Your task to perform on an android device: Show me the alarms in the clock app Image 0: 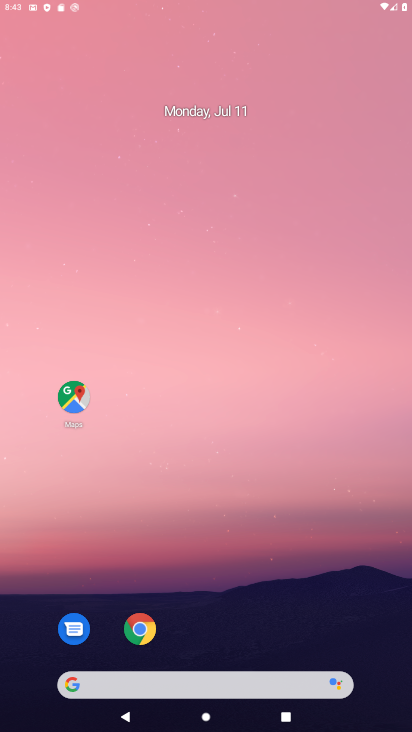
Step 0: click (218, 77)
Your task to perform on an android device: Show me the alarms in the clock app Image 1: 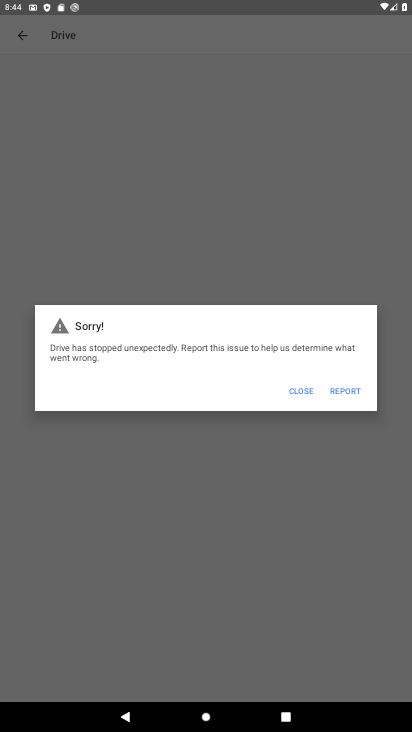
Step 1: press home button
Your task to perform on an android device: Show me the alarms in the clock app Image 2: 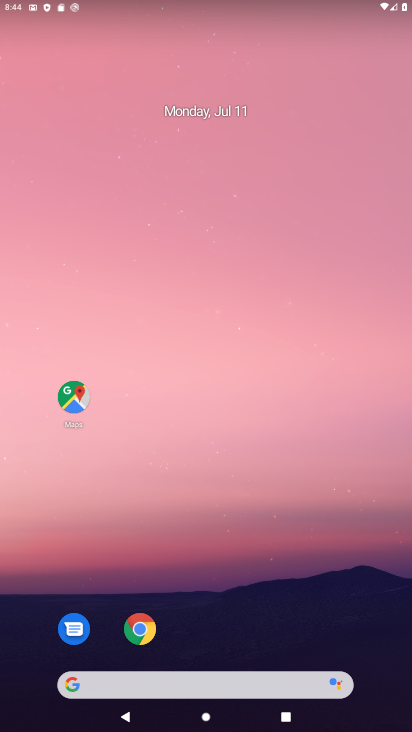
Step 2: drag from (320, 650) to (291, 103)
Your task to perform on an android device: Show me the alarms in the clock app Image 3: 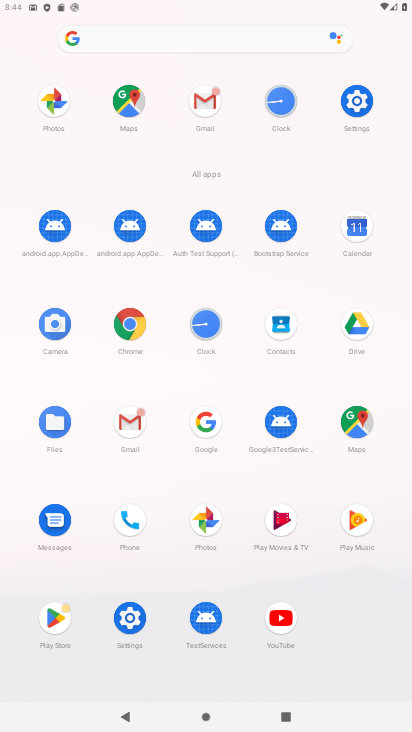
Step 3: click (203, 318)
Your task to perform on an android device: Show me the alarms in the clock app Image 4: 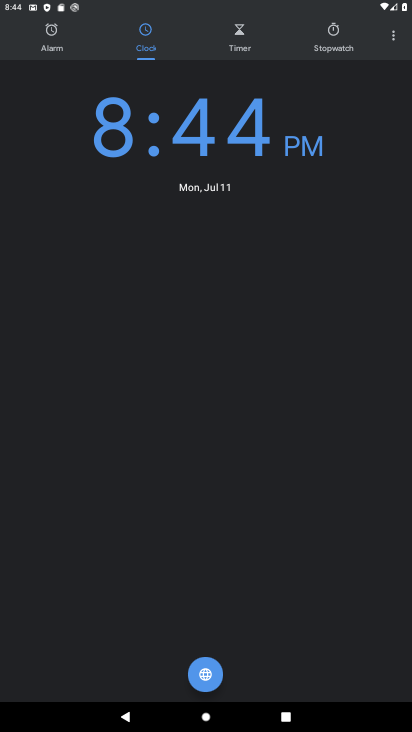
Step 4: click (57, 39)
Your task to perform on an android device: Show me the alarms in the clock app Image 5: 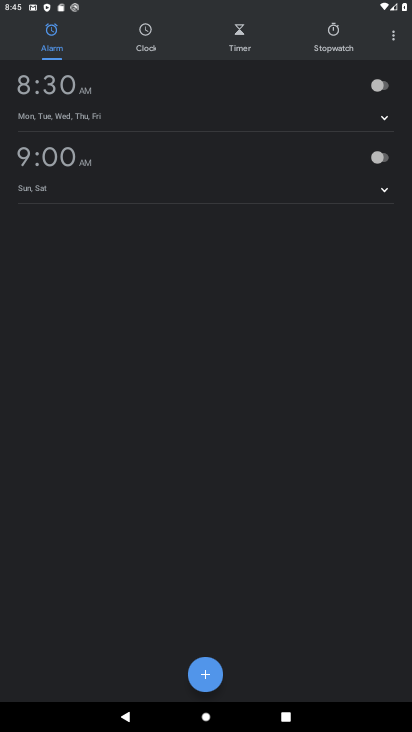
Step 5: click (154, 33)
Your task to perform on an android device: Show me the alarms in the clock app Image 6: 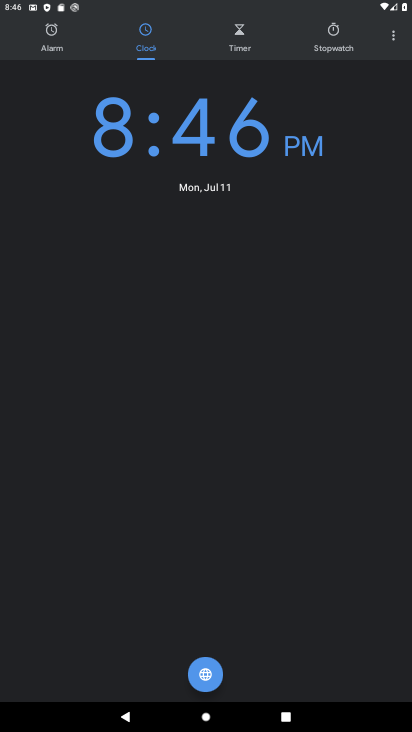
Step 6: click (53, 20)
Your task to perform on an android device: Show me the alarms in the clock app Image 7: 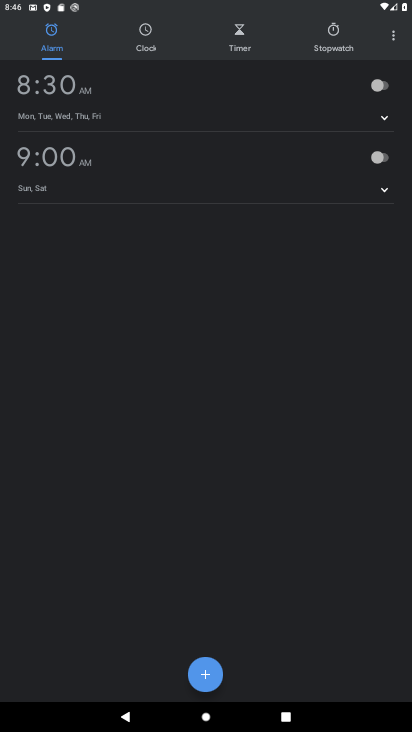
Step 7: task complete